Your task to perform on an android device: Go to sound settings Image 0: 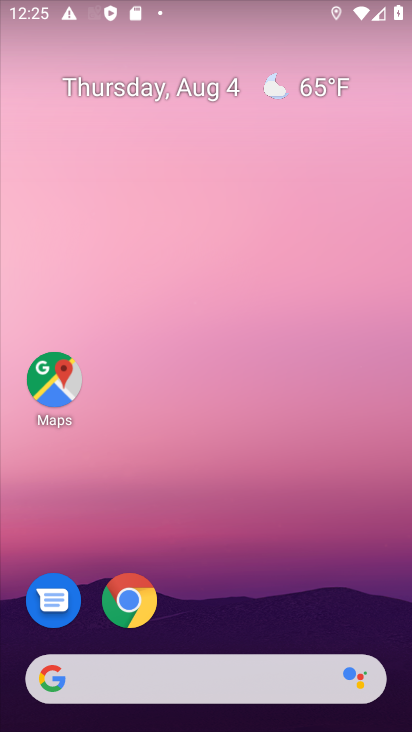
Step 0: drag from (205, 657) to (95, 61)
Your task to perform on an android device: Go to sound settings Image 1: 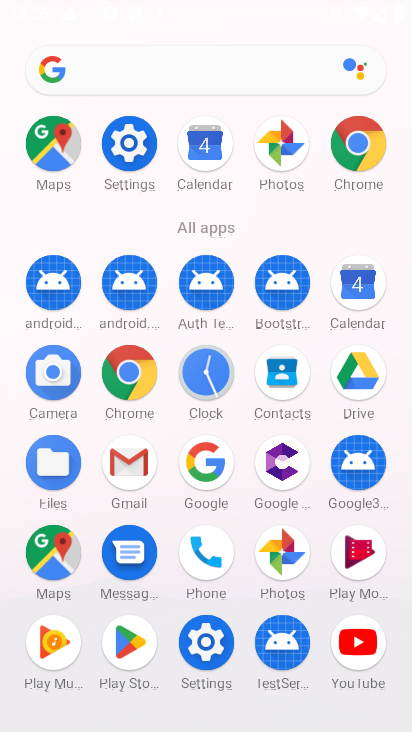
Step 1: click (195, 627)
Your task to perform on an android device: Go to sound settings Image 2: 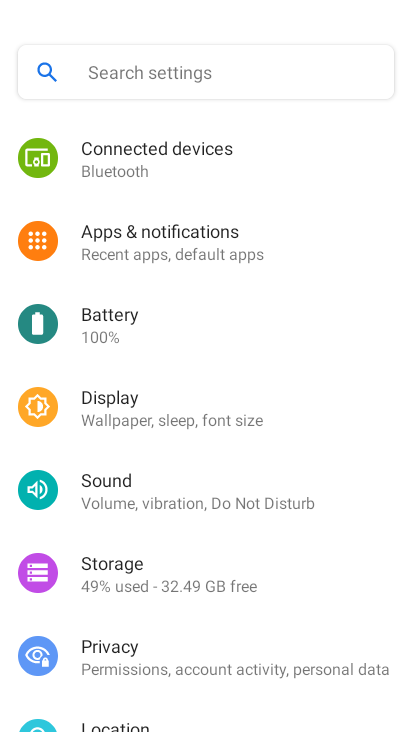
Step 2: click (123, 505)
Your task to perform on an android device: Go to sound settings Image 3: 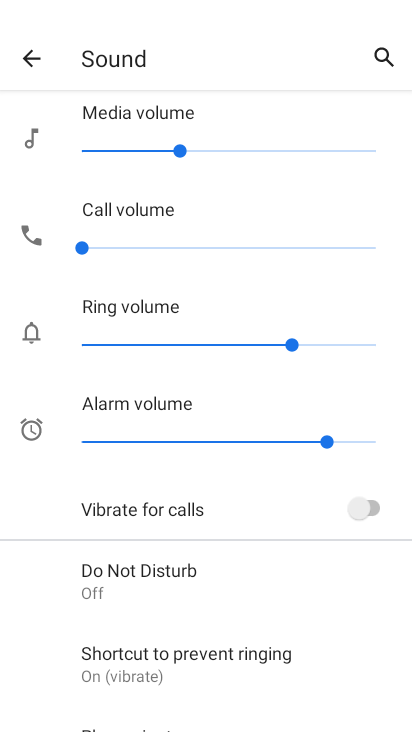
Step 3: task complete